Your task to perform on an android device: toggle show notifications on the lock screen Image 0: 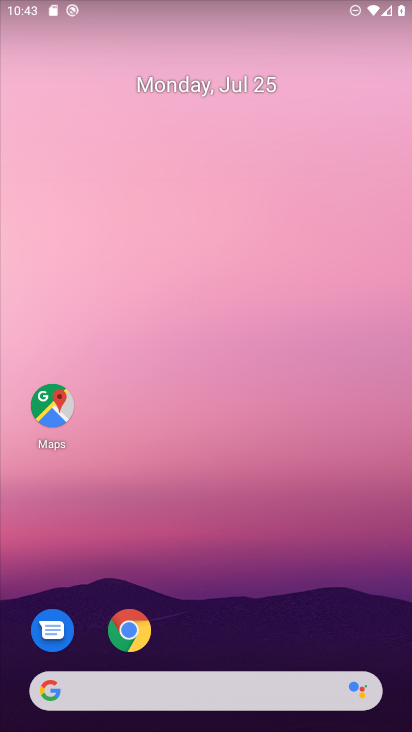
Step 0: drag from (288, 505) to (256, 22)
Your task to perform on an android device: toggle show notifications on the lock screen Image 1: 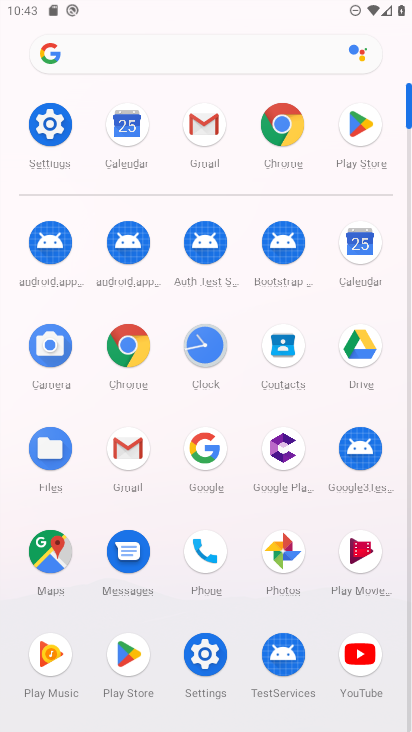
Step 1: click (60, 111)
Your task to perform on an android device: toggle show notifications on the lock screen Image 2: 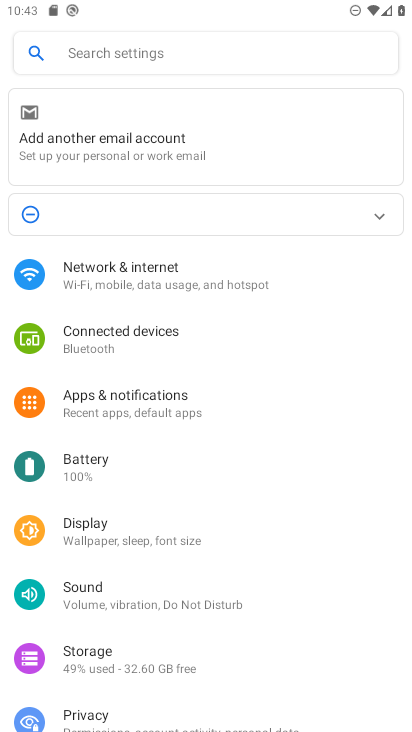
Step 2: drag from (225, 630) to (252, 254)
Your task to perform on an android device: toggle show notifications on the lock screen Image 3: 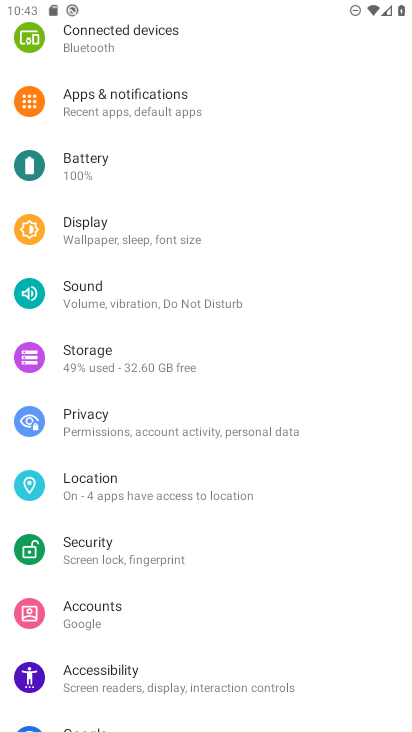
Step 3: click (159, 117)
Your task to perform on an android device: toggle show notifications on the lock screen Image 4: 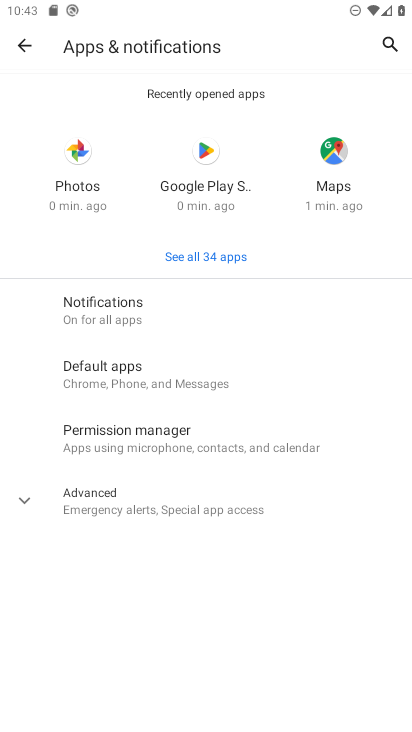
Step 4: click (137, 323)
Your task to perform on an android device: toggle show notifications on the lock screen Image 5: 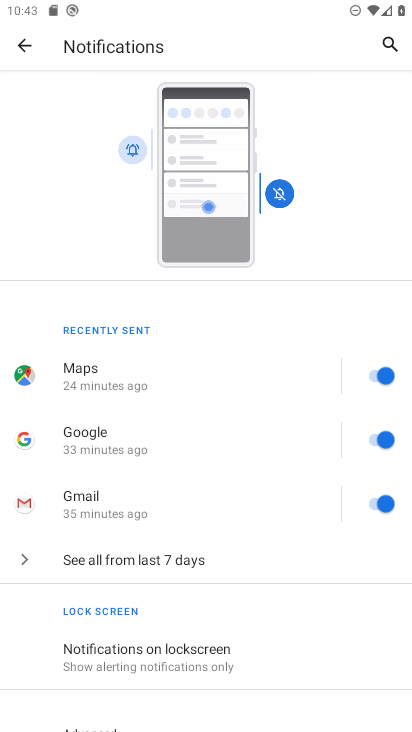
Step 5: drag from (340, 653) to (290, 207)
Your task to perform on an android device: toggle show notifications on the lock screen Image 6: 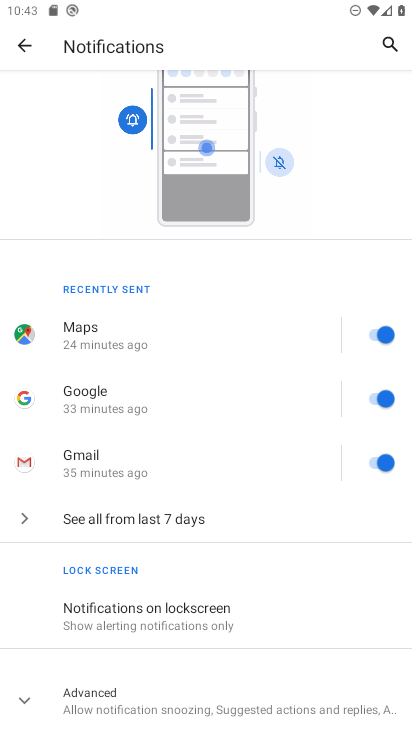
Step 6: click (192, 613)
Your task to perform on an android device: toggle show notifications on the lock screen Image 7: 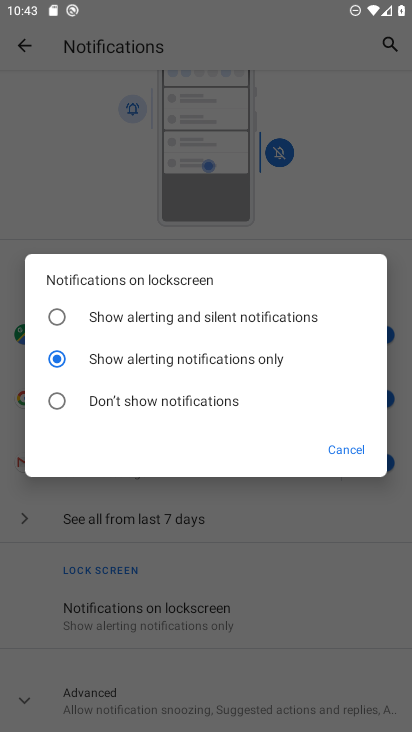
Step 7: click (175, 402)
Your task to perform on an android device: toggle show notifications on the lock screen Image 8: 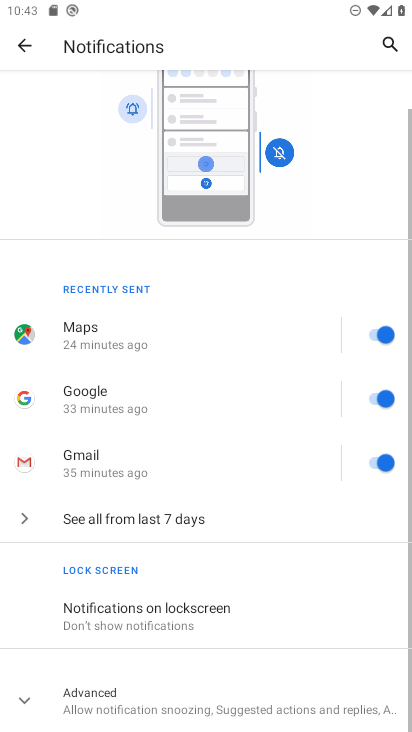
Step 8: task complete